Your task to perform on an android device: Open Chrome and go to the settings page Image 0: 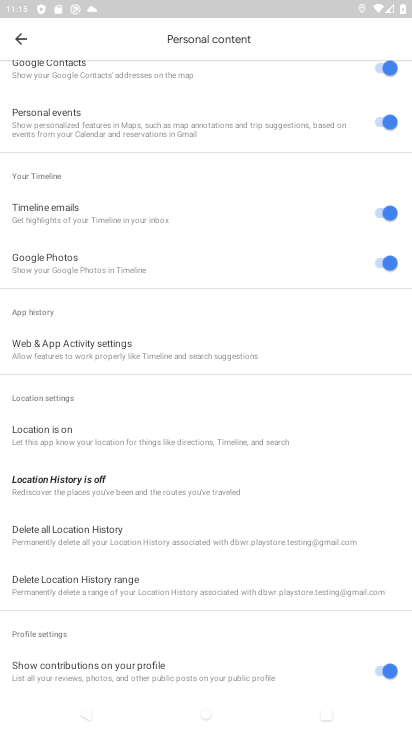
Step 0: press home button
Your task to perform on an android device: Open Chrome and go to the settings page Image 1: 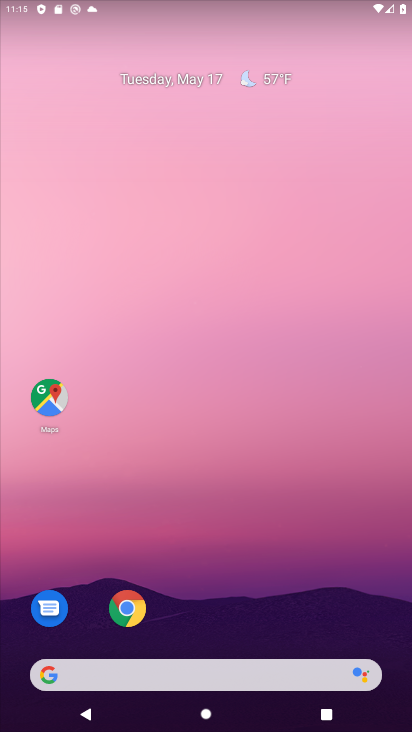
Step 1: click (121, 610)
Your task to perform on an android device: Open Chrome and go to the settings page Image 2: 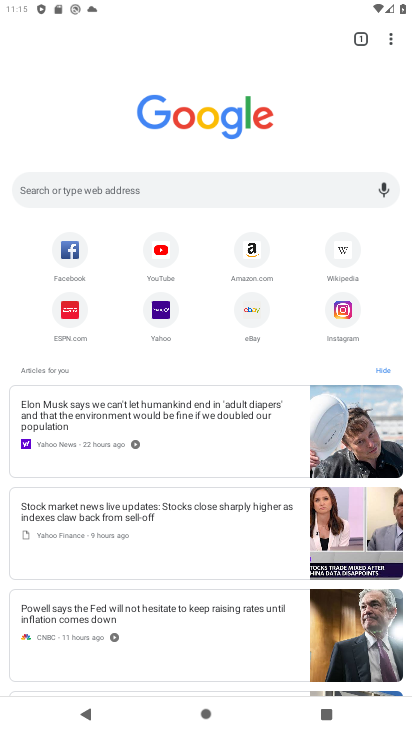
Step 2: click (390, 38)
Your task to perform on an android device: Open Chrome and go to the settings page Image 3: 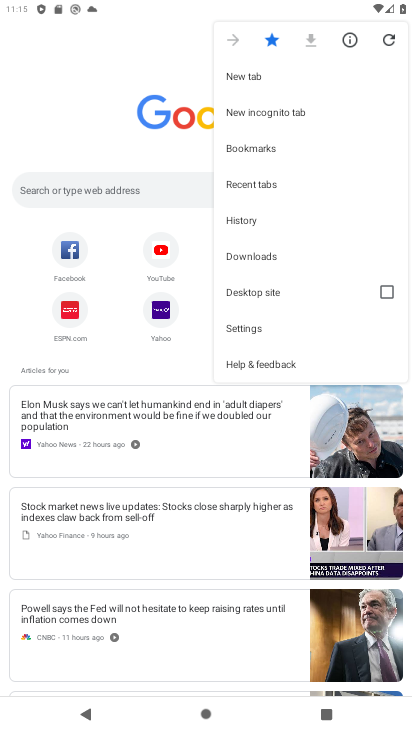
Step 3: click (254, 325)
Your task to perform on an android device: Open Chrome and go to the settings page Image 4: 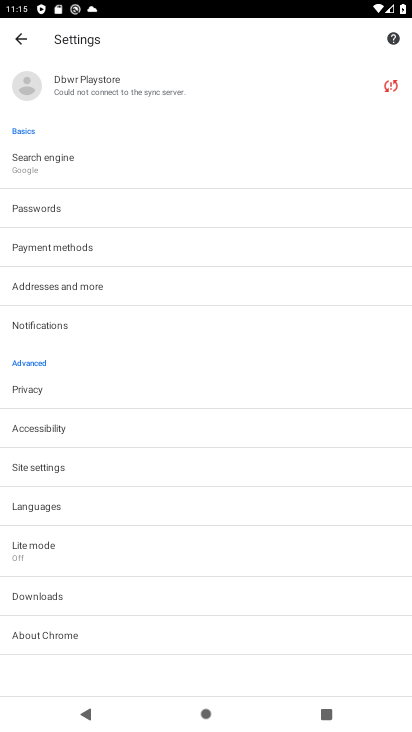
Step 4: task complete